Your task to perform on an android device: open app "PlayWell" Image 0: 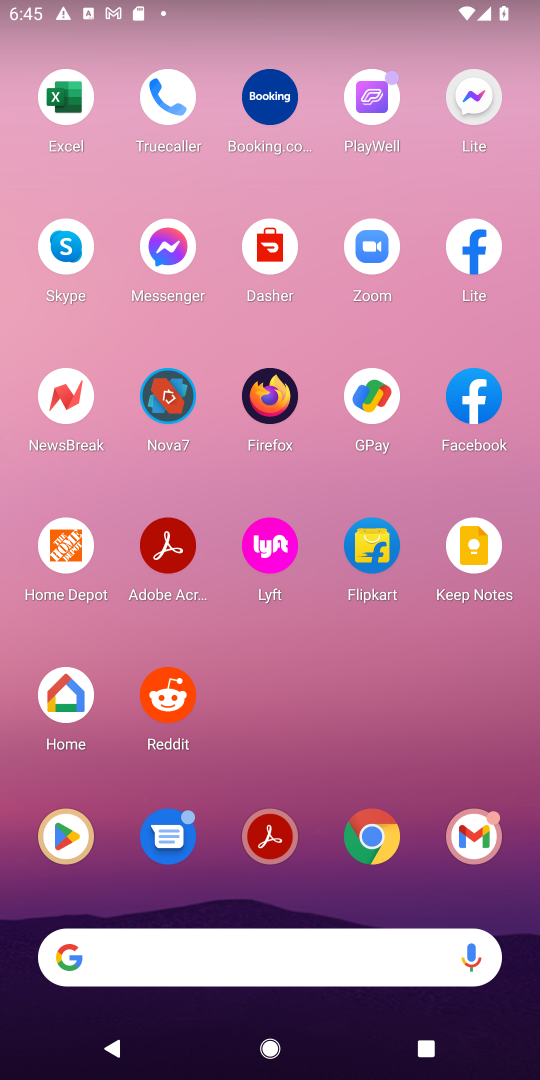
Step 0: press home button
Your task to perform on an android device: open app "PlayWell" Image 1: 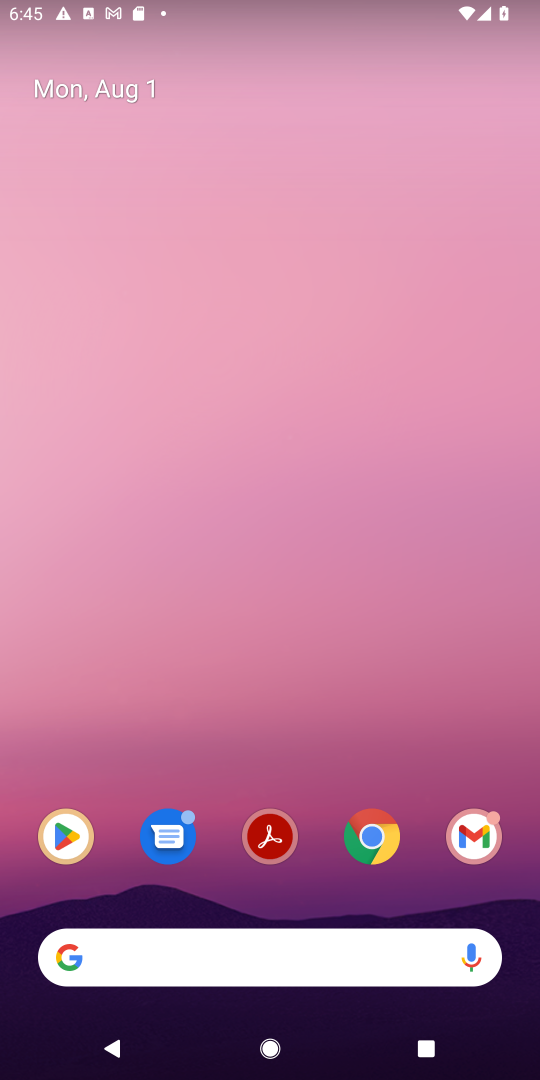
Step 1: click (69, 840)
Your task to perform on an android device: open app "PlayWell" Image 2: 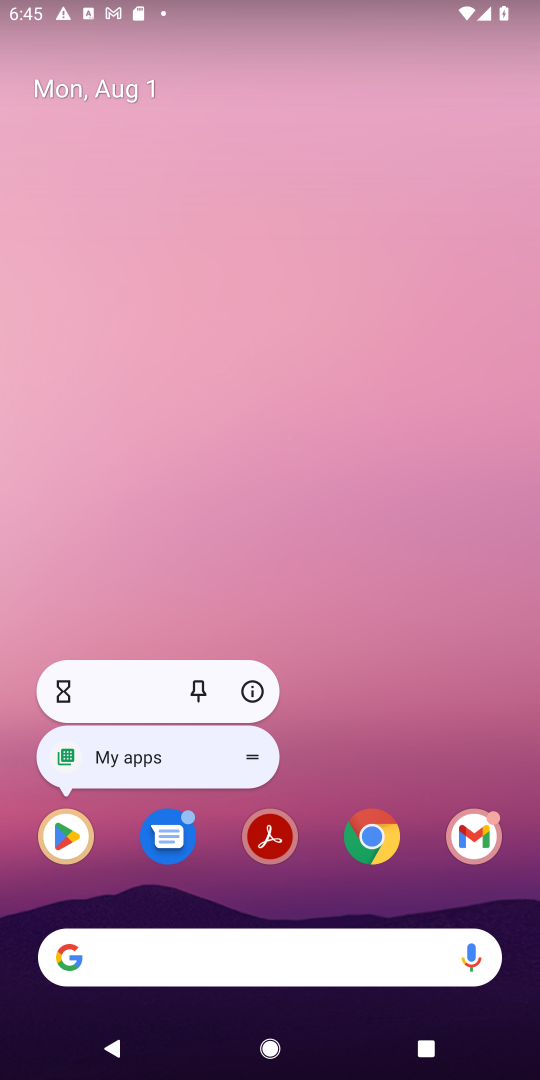
Step 2: click (57, 828)
Your task to perform on an android device: open app "PlayWell" Image 3: 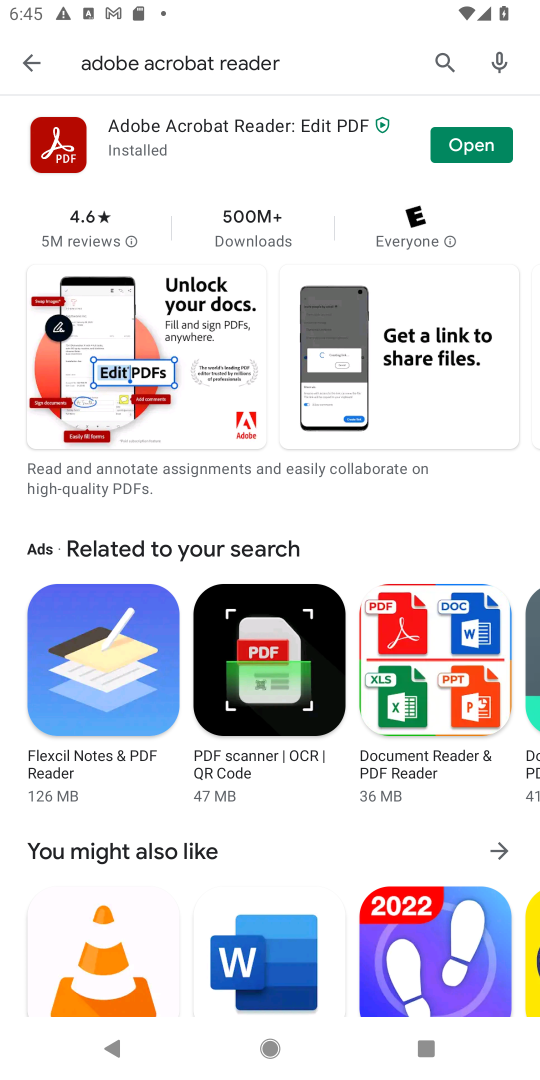
Step 3: click (437, 59)
Your task to perform on an android device: open app "PlayWell" Image 4: 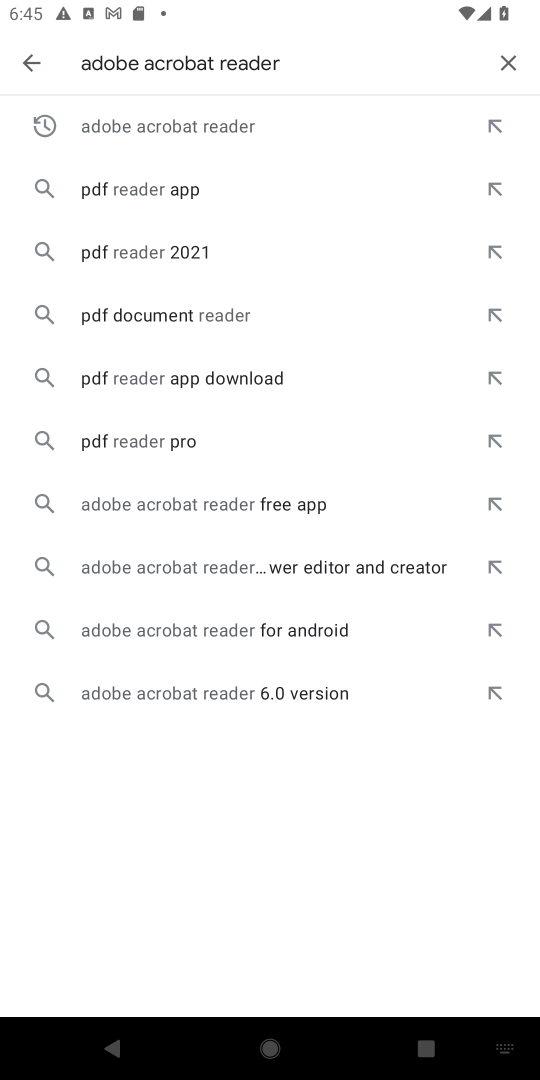
Step 4: click (501, 59)
Your task to perform on an android device: open app "PlayWell" Image 5: 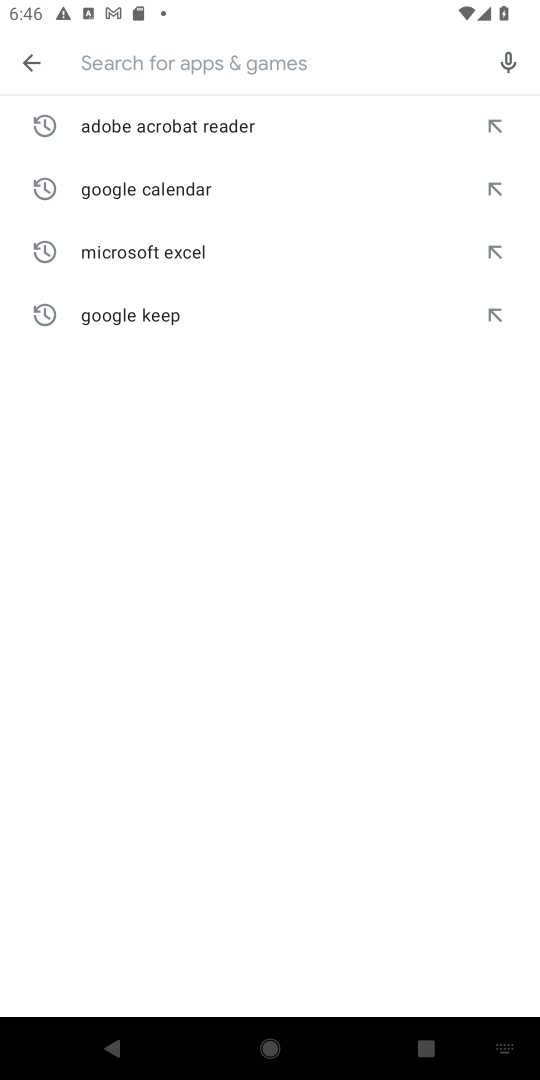
Step 5: type "PlayWell"
Your task to perform on an android device: open app "PlayWell" Image 6: 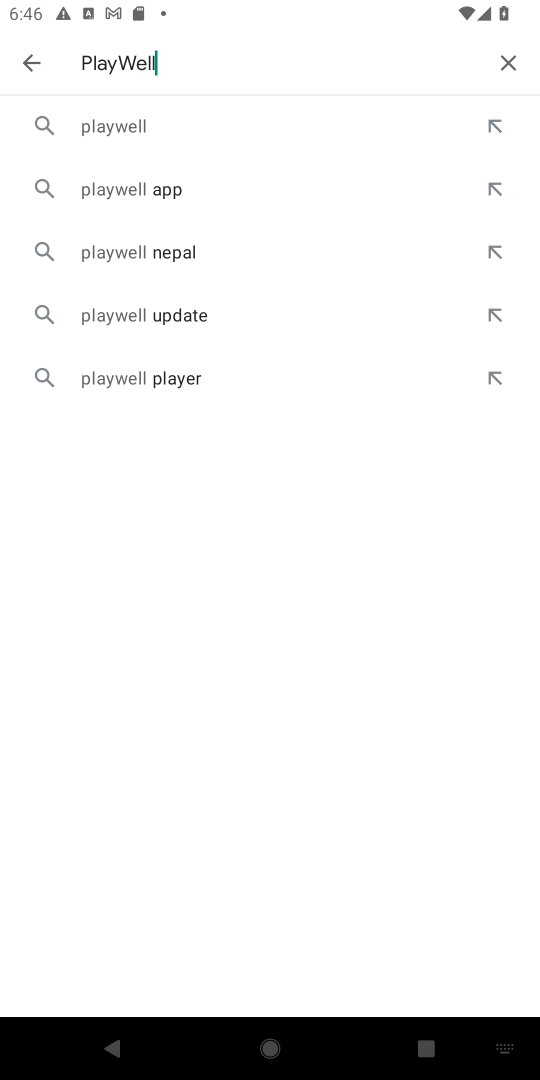
Step 6: click (139, 124)
Your task to perform on an android device: open app "PlayWell" Image 7: 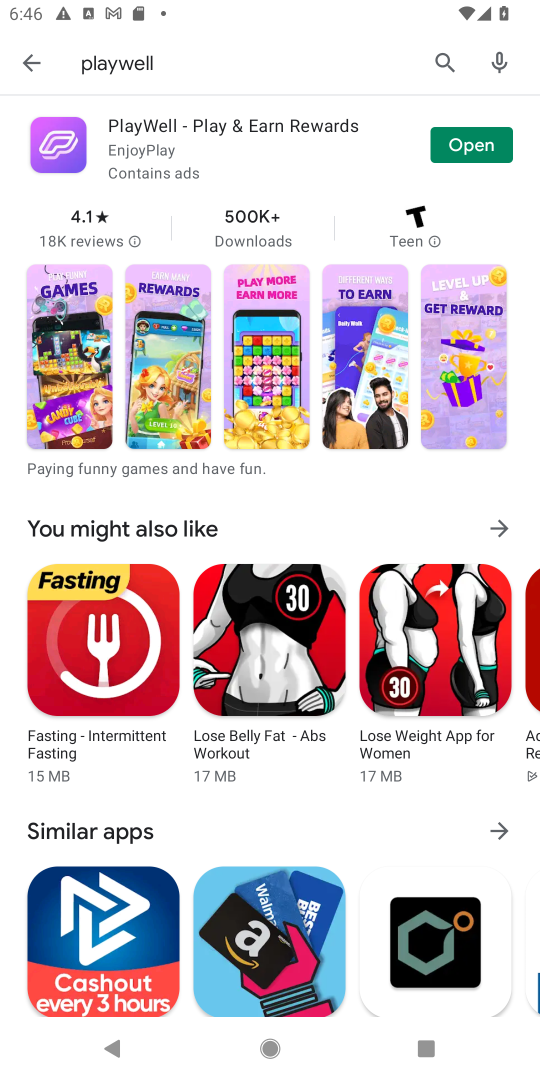
Step 7: click (466, 145)
Your task to perform on an android device: open app "PlayWell" Image 8: 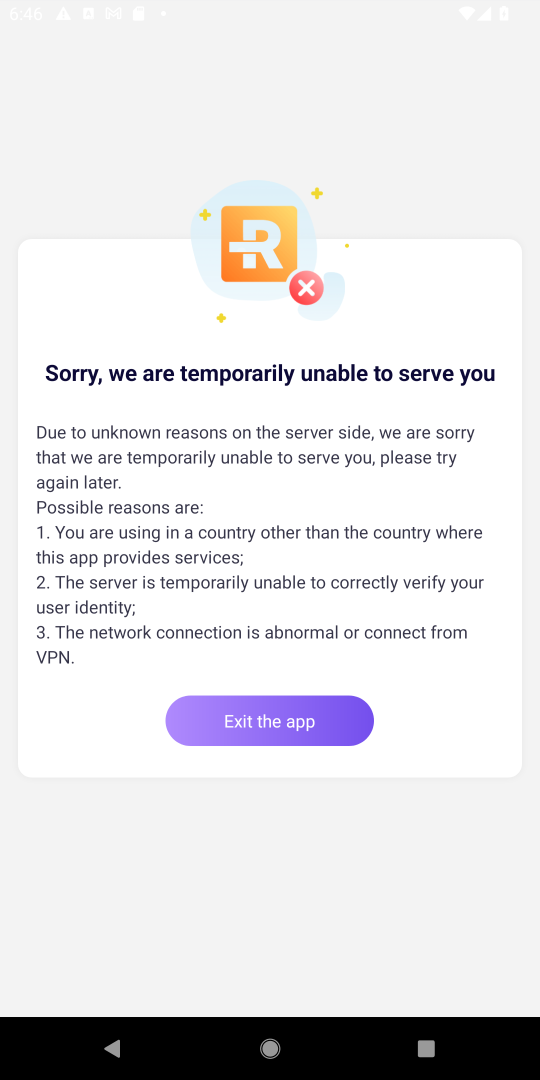
Step 8: task complete